Your task to perform on an android device: Go to location settings Image 0: 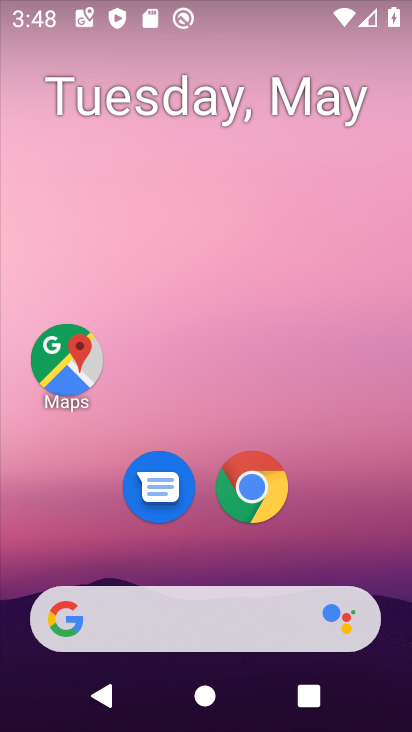
Step 0: drag from (213, 533) to (344, 102)
Your task to perform on an android device: Go to location settings Image 1: 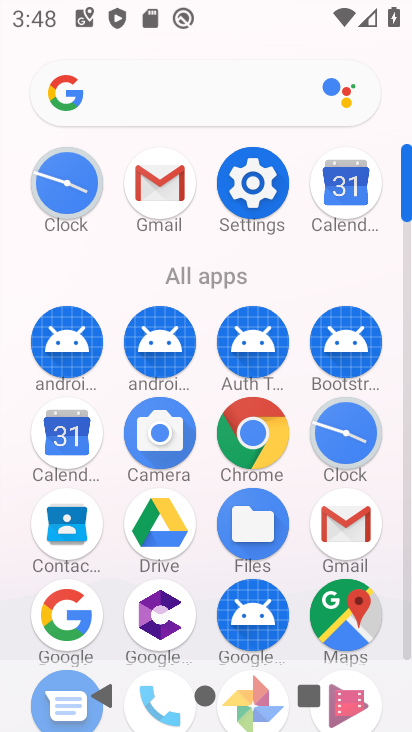
Step 1: click (259, 204)
Your task to perform on an android device: Go to location settings Image 2: 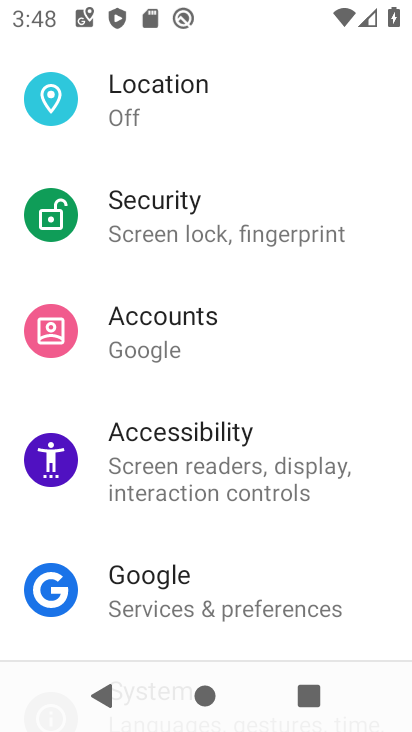
Step 2: click (175, 119)
Your task to perform on an android device: Go to location settings Image 3: 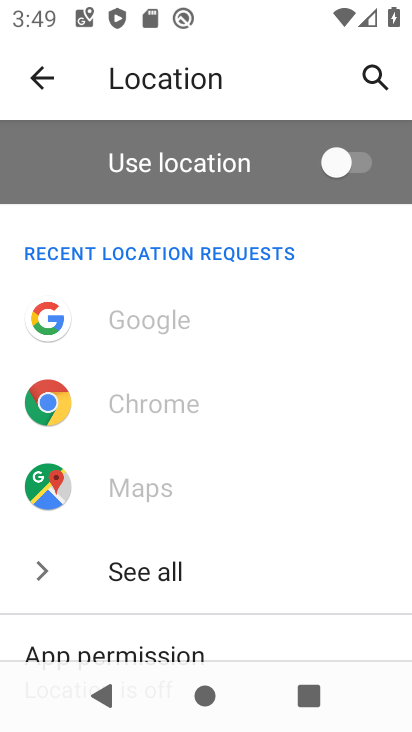
Step 3: task complete